Your task to perform on an android device: delete browsing data in the chrome app Image 0: 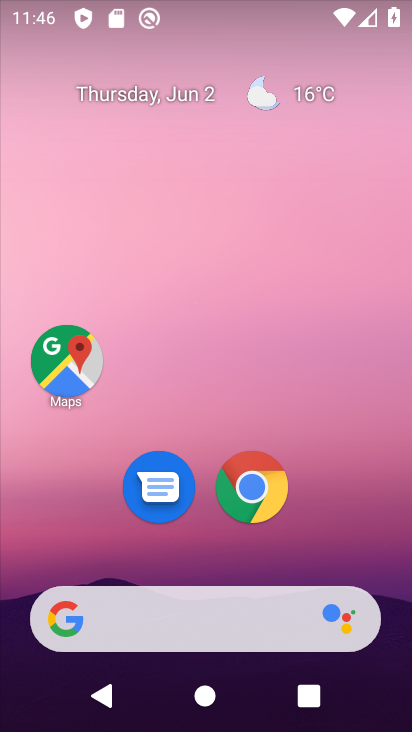
Step 0: press home button
Your task to perform on an android device: delete browsing data in the chrome app Image 1: 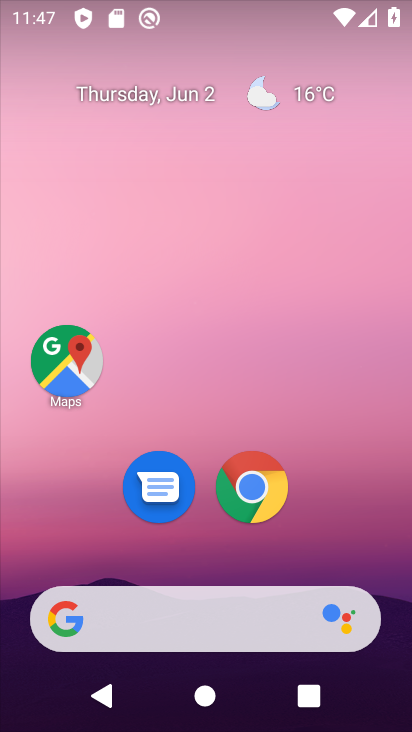
Step 1: click (256, 499)
Your task to perform on an android device: delete browsing data in the chrome app Image 2: 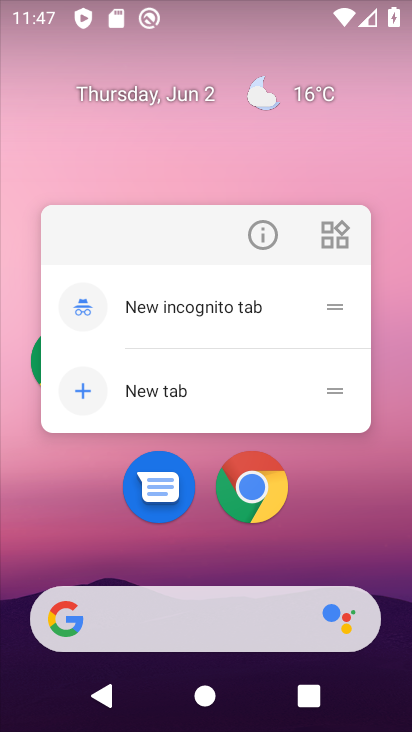
Step 2: click (254, 499)
Your task to perform on an android device: delete browsing data in the chrome app Image 3: 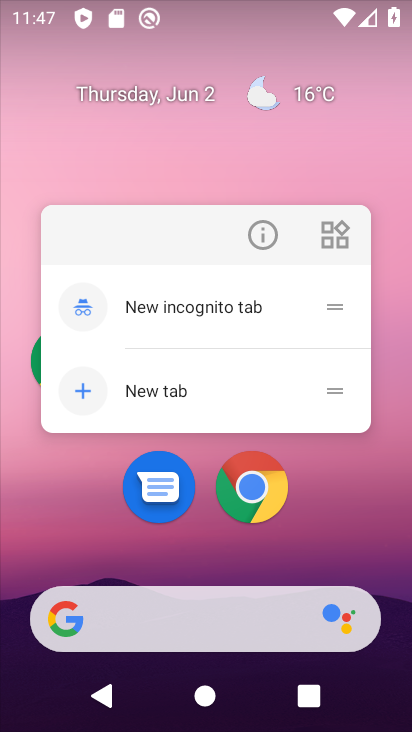
Step 3: click (253, 499)
Your task to perform on an android device: delete browsing data in the chrome app Image 4: 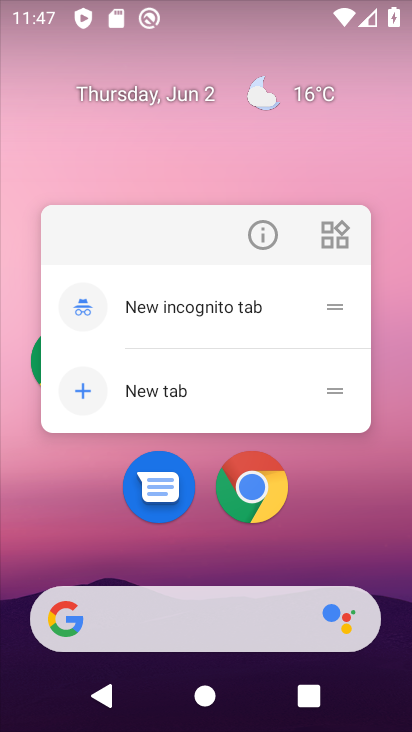
Step 4: click (344, 511)
Your task to perform on an android device: delete browsing data in the chrome app Image 5: 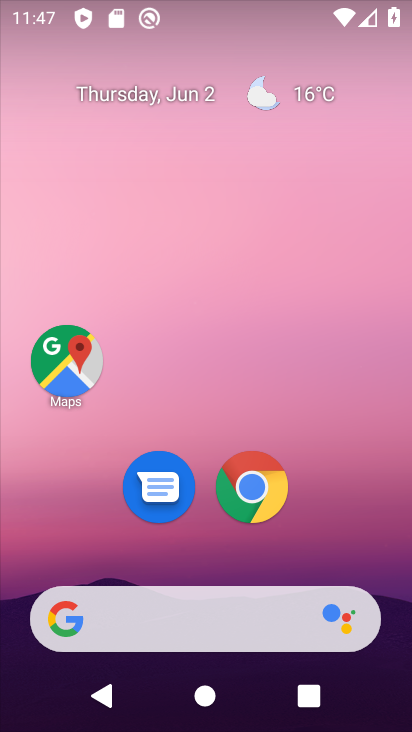
Step 5: click (248, 502)
Your task to perform on an android device: delete browsing data in the chrome app Image 6: 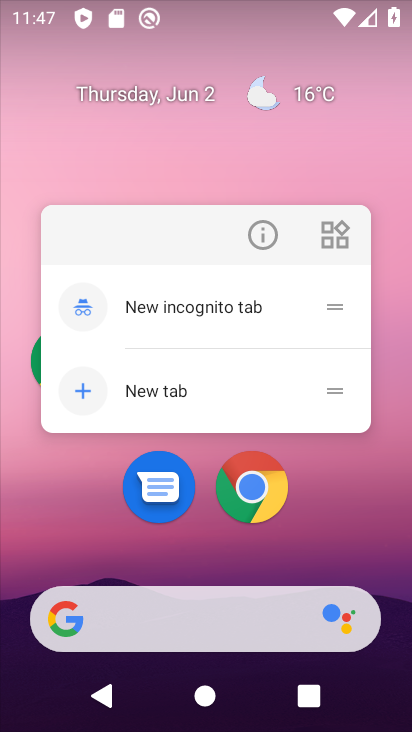
Step 6: click (248, 502)
Your task to perform on an android device: delete browsing data in the chrome app Image 7: 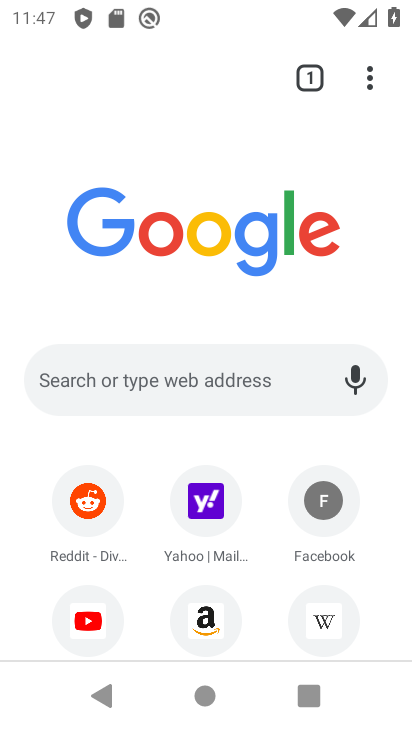
Step 7: click (368, 73)
Your task to perform on an android device: delete browsing data in the chrome app Image 8: 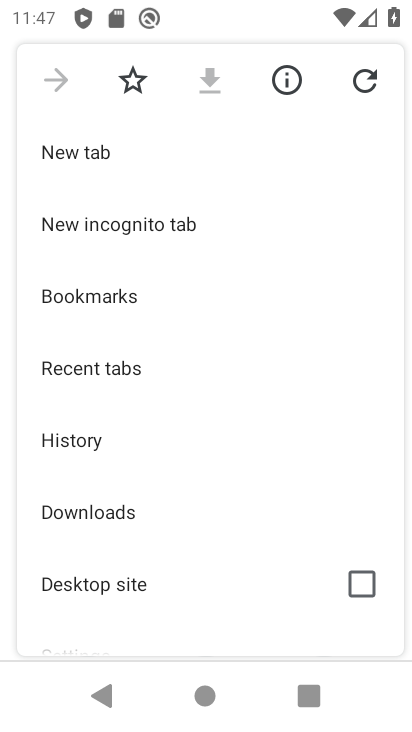
Step 8: click (63, 443)
Your task to perform on an android device: delete browsing data in the chrome app Image 9: 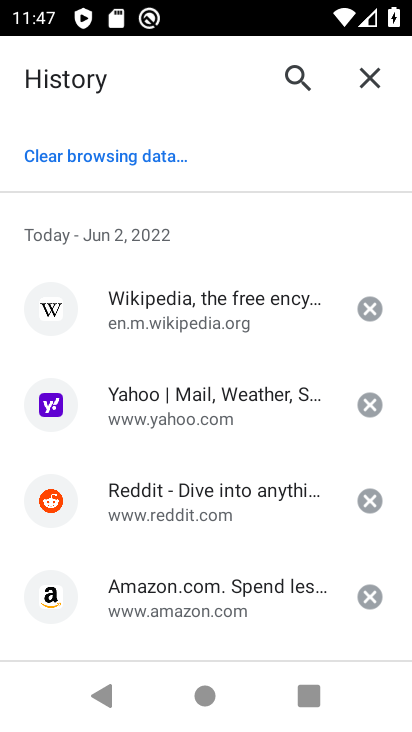
Step 9: click (73, 153)
Your task to perform on an android device: delete browsing data in the chrome app Image 10: 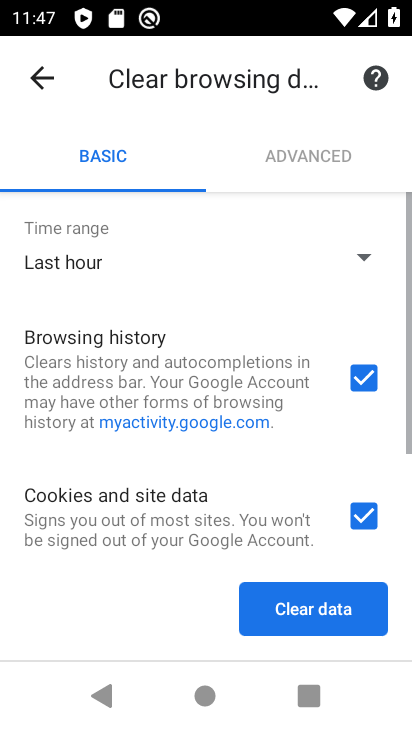
Step 10: click (300, 621)
Your task to perform on an android device: delete browsing data in the chrome app Image 11: 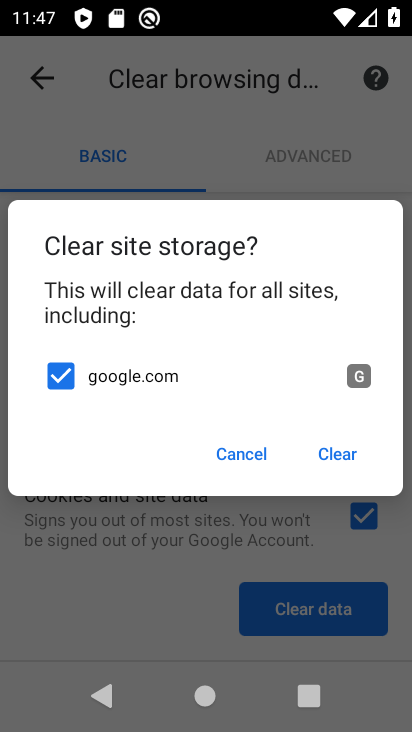
Step 11: click (353, 456)
Your task to perform on an android device: delete browsing data in the chrome app Image 12: 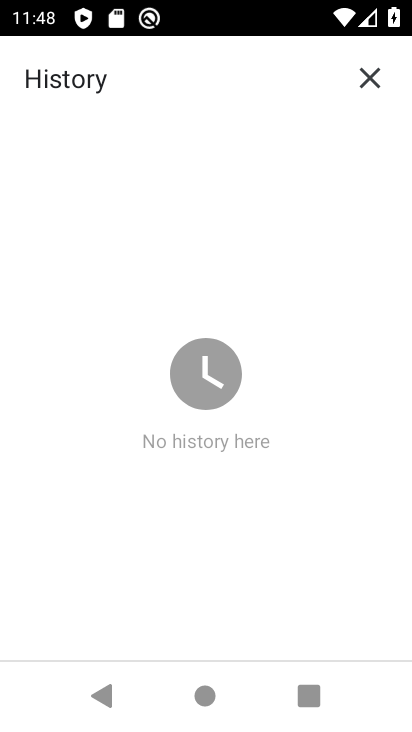
Step 12: task complete